Your task to perform on an android device: uninstall "Adobe Acrobat Reader" Image 0: 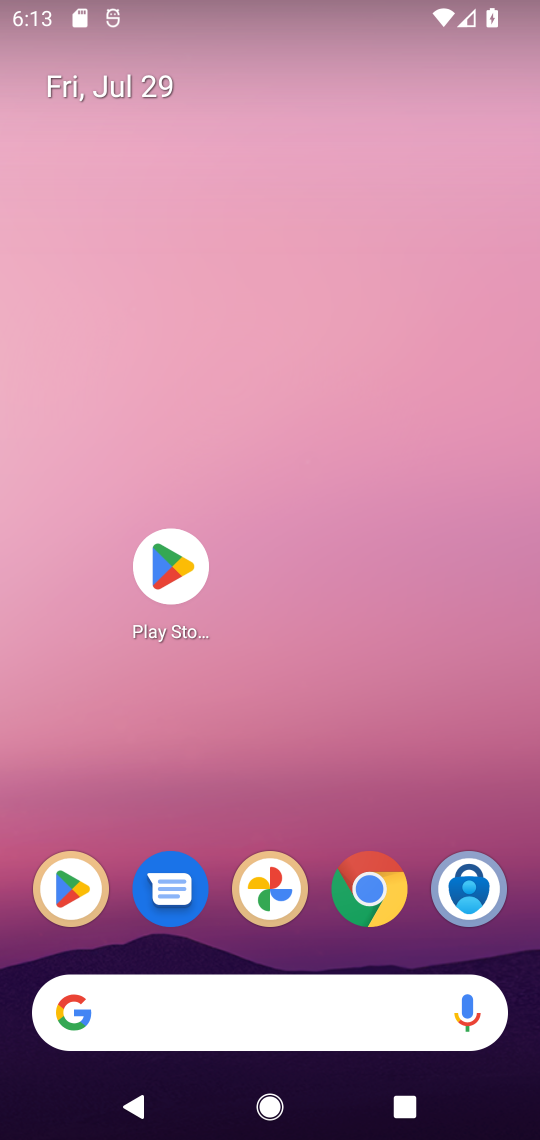
Step 0: press home button
Your task to perform on an android device: uninstall "Adobe Acrobat Reader" Image 1: 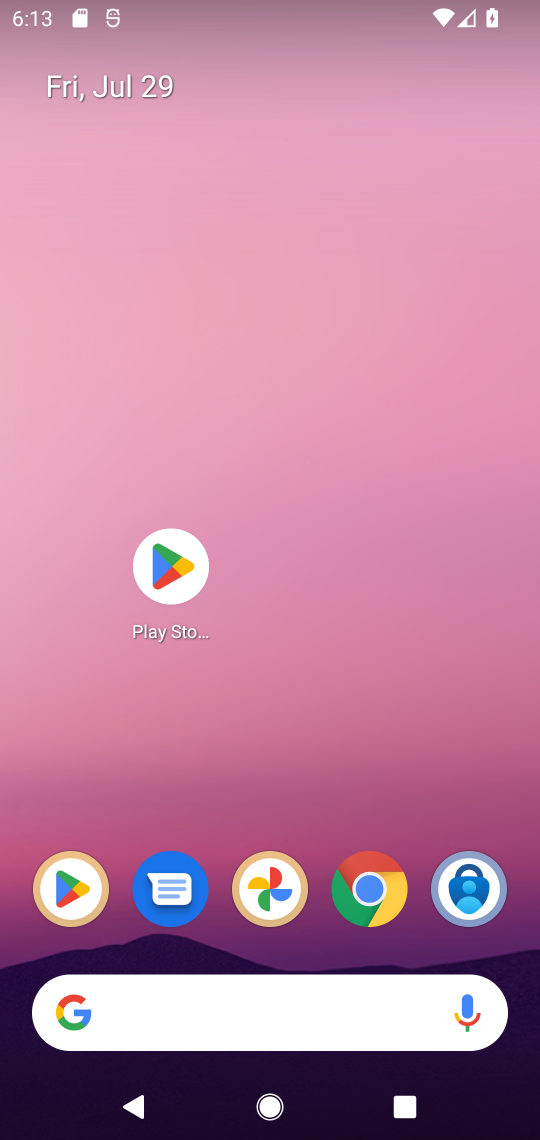
Step 1: click (174, 562)
Your task to perform on an android device: uninstall "Adobe Acrobat Reader" Image 2: 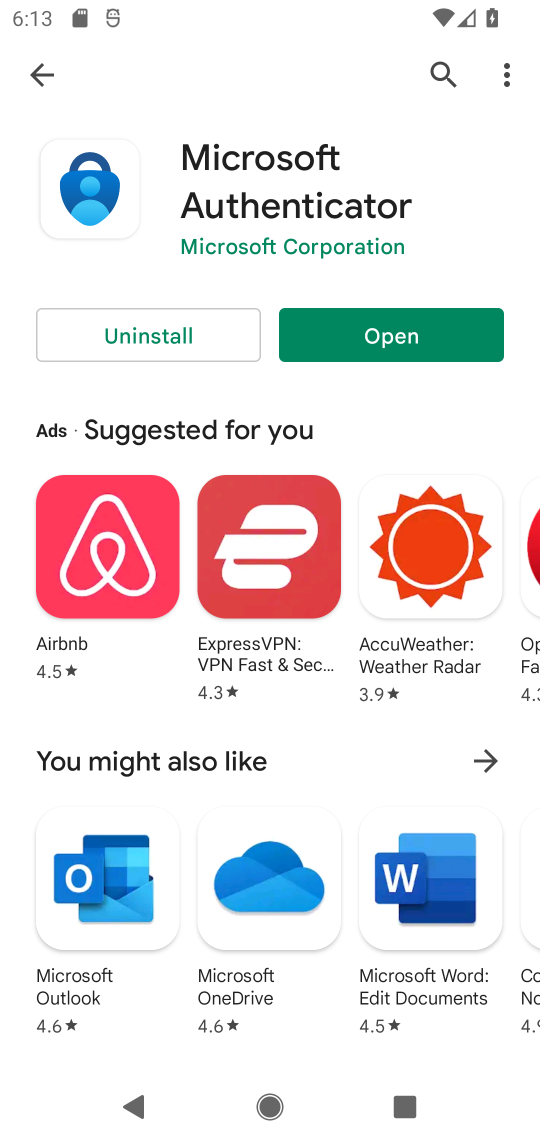
Step 2: click (445, 66)
Your task to perform on an android device: uninstall "Adobe Acrobat Reader" Image 3: 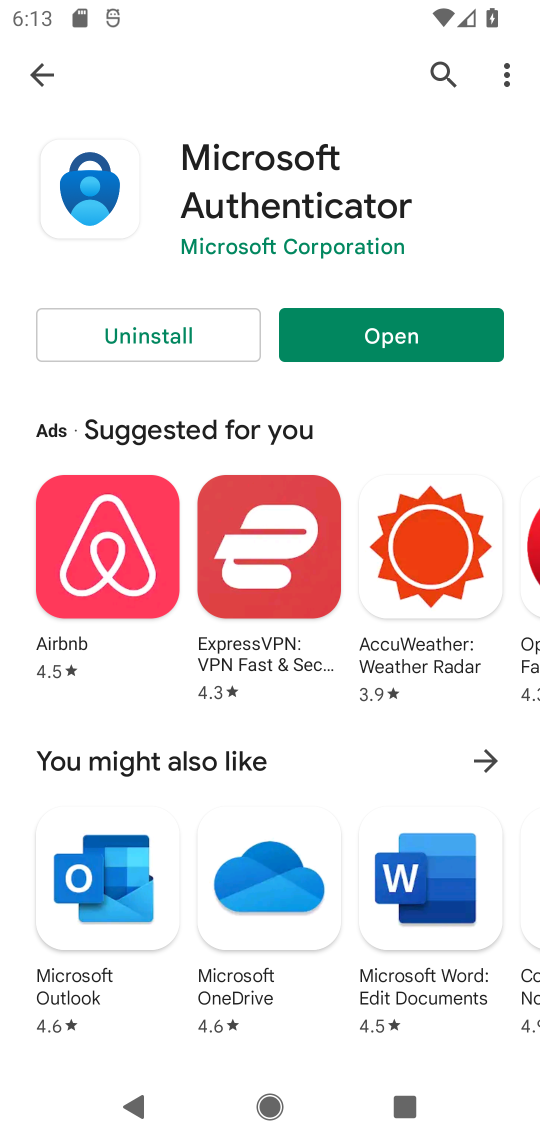
Step 3: click (437, 68)
Your task to perform on an android device: uninstall "Adobe Acrobat Reader" Image 4: 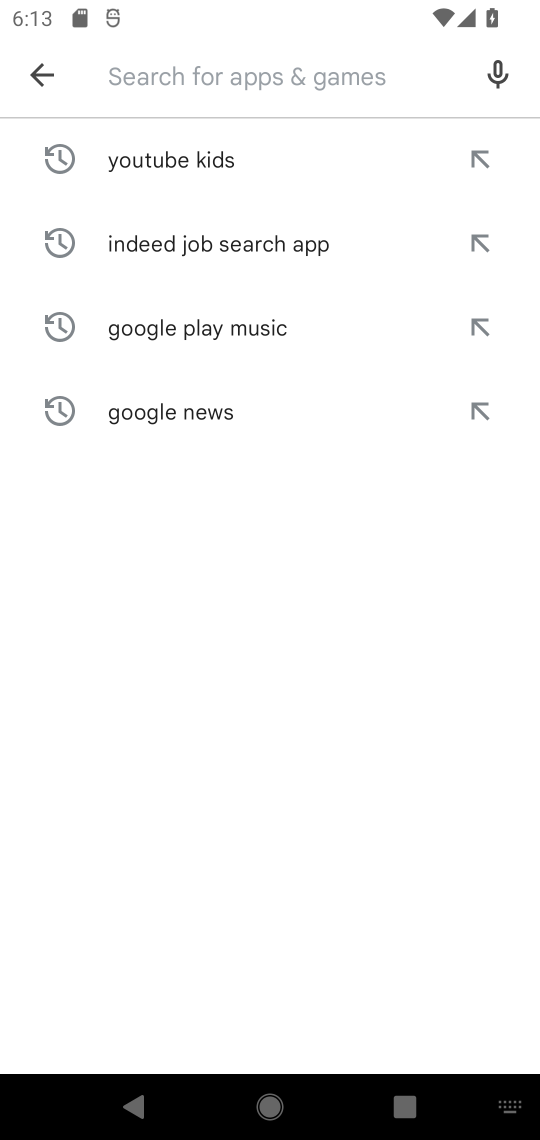
Step 4: type "Adobe Acrobat Reader"
Your task to perform on an android device: uninstall "Adobe Acrobat Reader" Image 5: 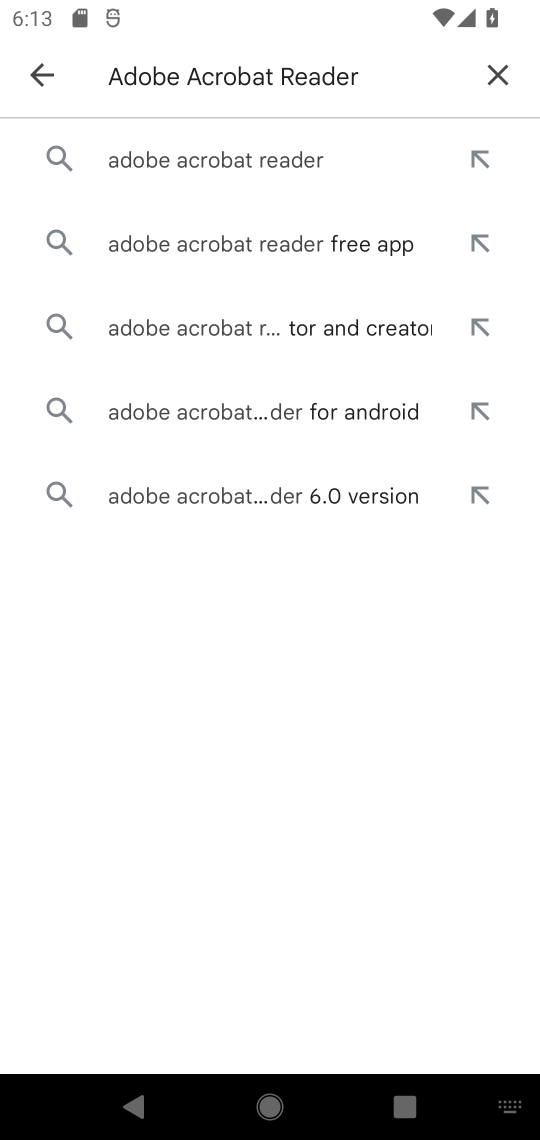
Step 5: click (267, 161)
Your task to perform on an android device: uninstall "Adobe Acrobat Reader" Image 6: 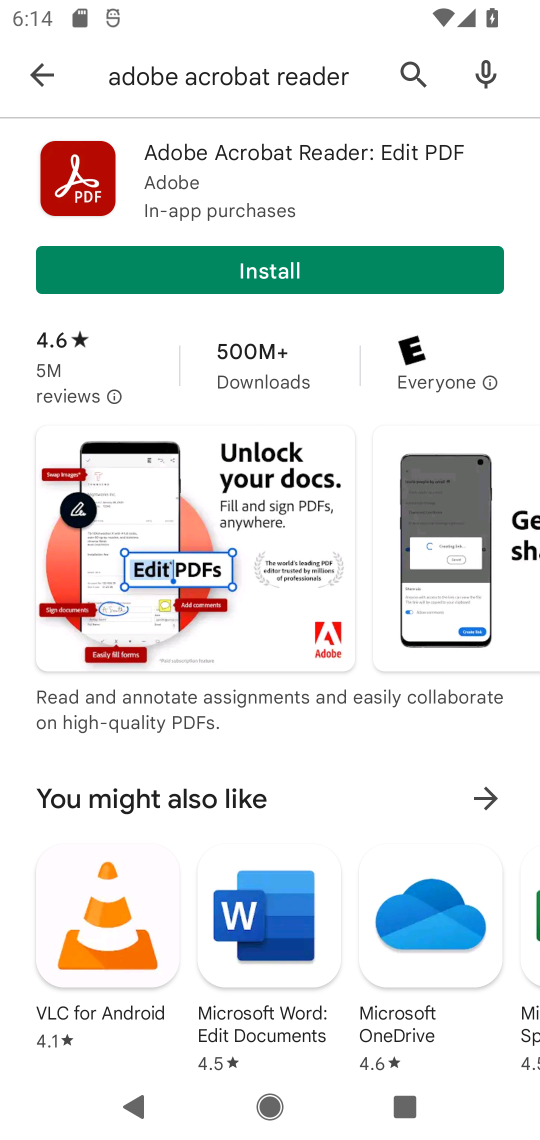
Step 6: task complete